Your task to perform on an android device: toggle sleep mode Image 0: 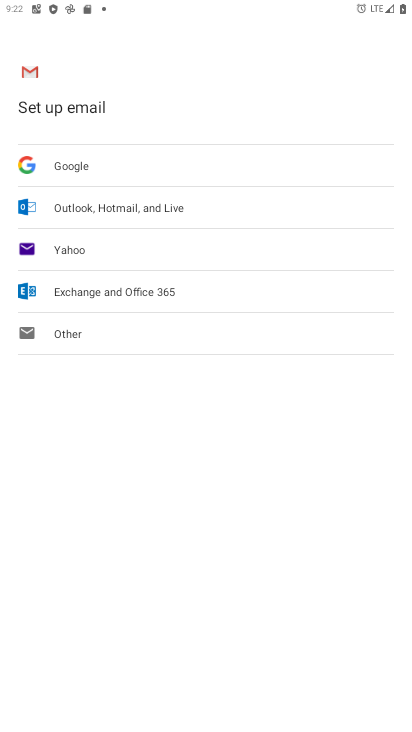
Step 0: press home button
Your task to perform on an android device: toggle sleep mode Image 1: 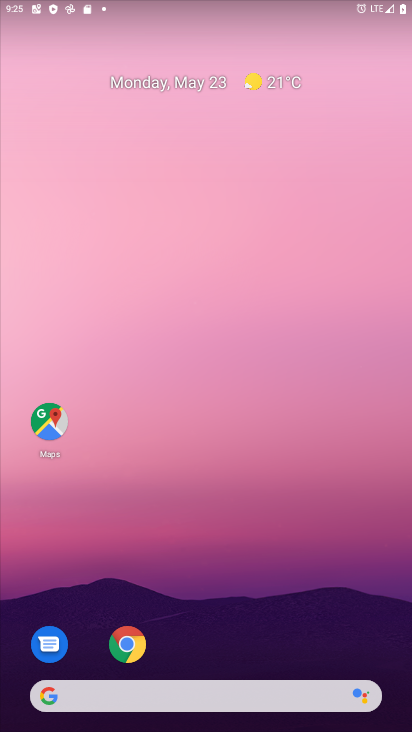
Step 1: drag from (235, 724) to (281, 203)
Your task to perform on an android device: toggle sleep mode Image 2: 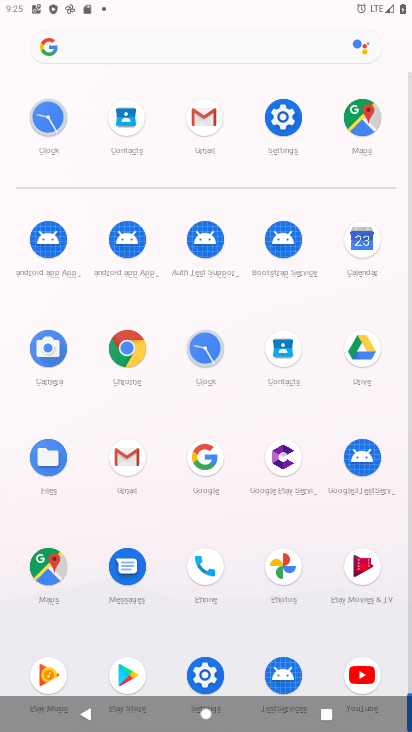
Step 2: click (293, 105)
Your task to perform on an android device: toggle sleep mode Image 3: 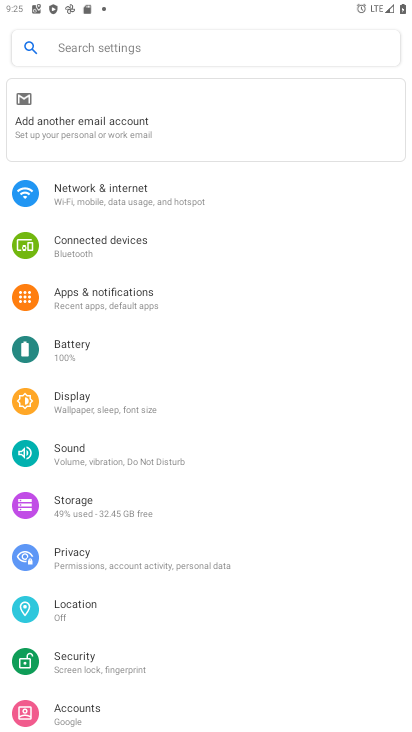
Step 3: click (173, 405)
Your task to perform on an android device: toggle sleep mode Image 4: 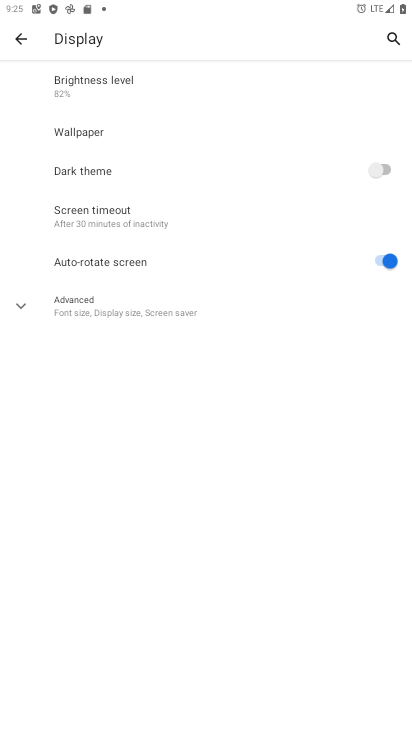
Step 4: task complete